Your task to perform on an android device: turn on bluetooth scan Image 0: 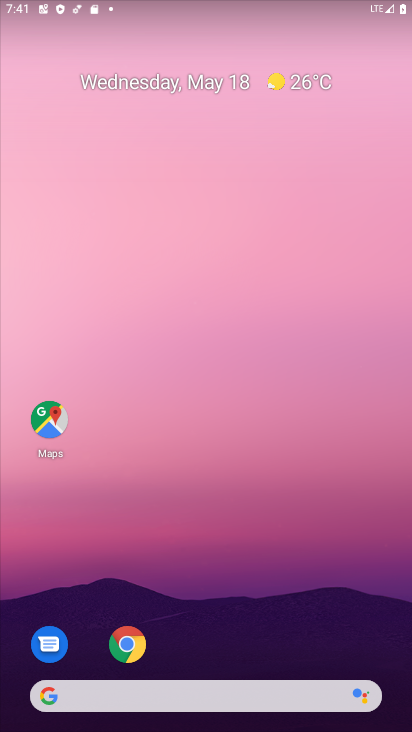
Step 0: drag from (382, 595) to (376, 312)
Your task to perform on an android device: turn on bluetooth scan Image 1: 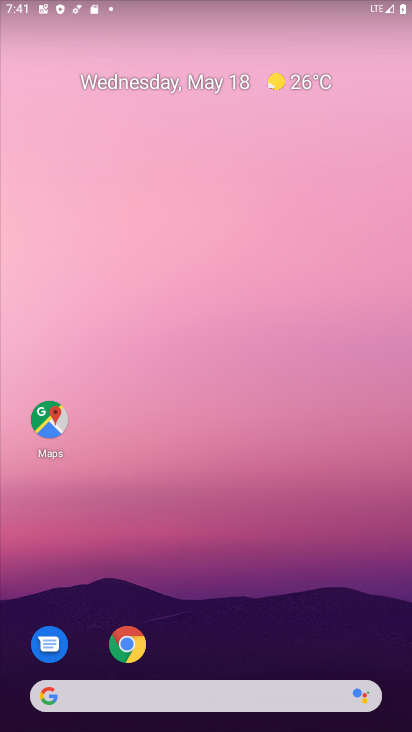
Step 1: drag from (392, 596) to (364, 288)
Your task to perform on an android device: turn on bluetooth scan Image 2: 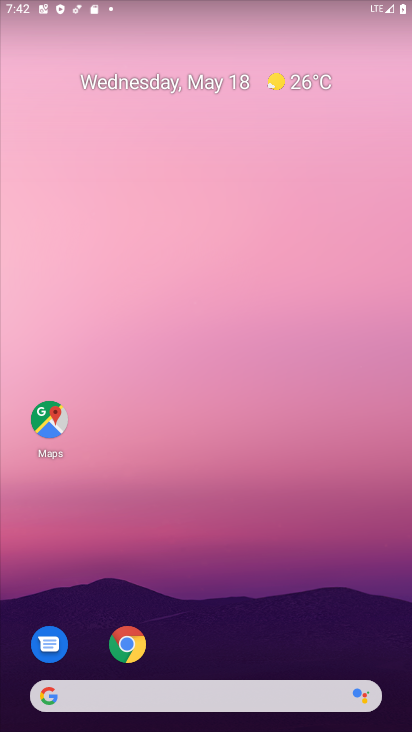
Step 2: drag from (399, 687) to (366, 247)
Your task to perform on an android device: turn on bluetooth scan Image 3: 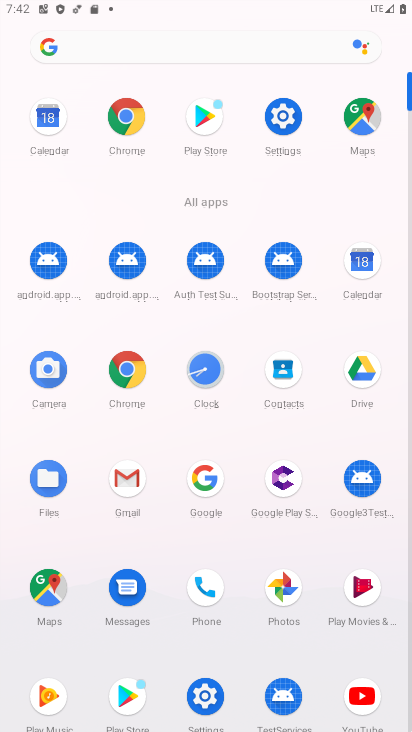
Step 3: click (278, 112)
Your task to perform on an android device: turn on bluetooth scan Image 4: 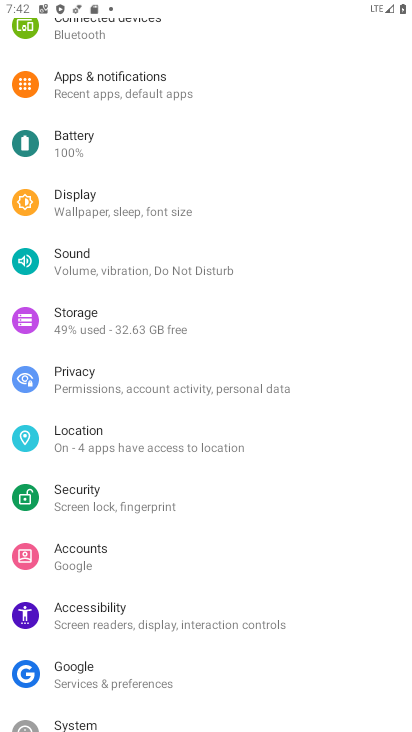
Step 4: click (91, 436)
Your task to perform on an android device: turn on bluetooth scan Image 5: 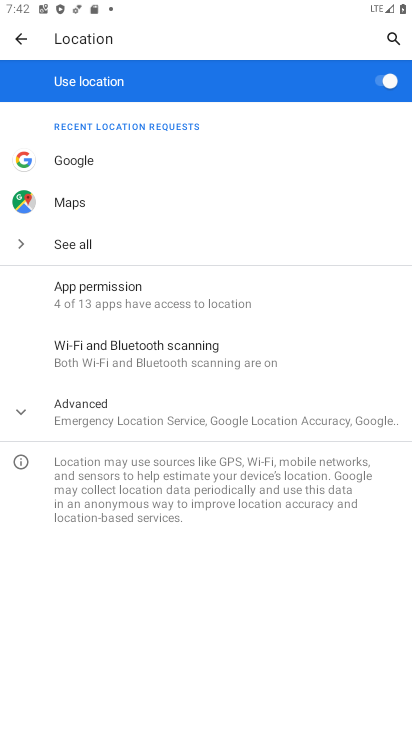
Step 5: click (116, 349)
Your task to perform on an android device: turn on bluetooth scan Image 6: 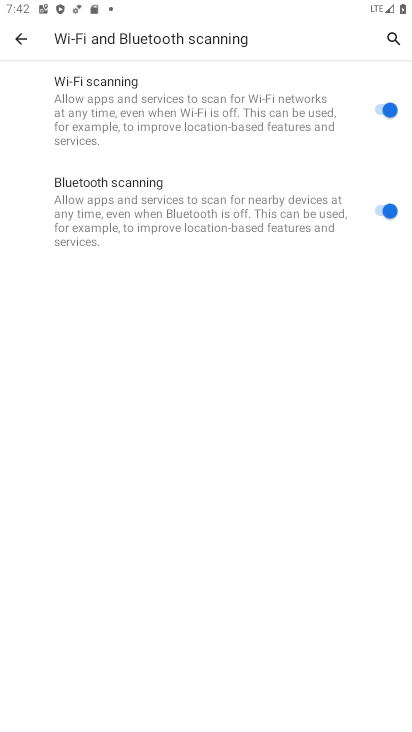
Step 6: task complete